Your task to perform on an android device: Go to settings Image 0: 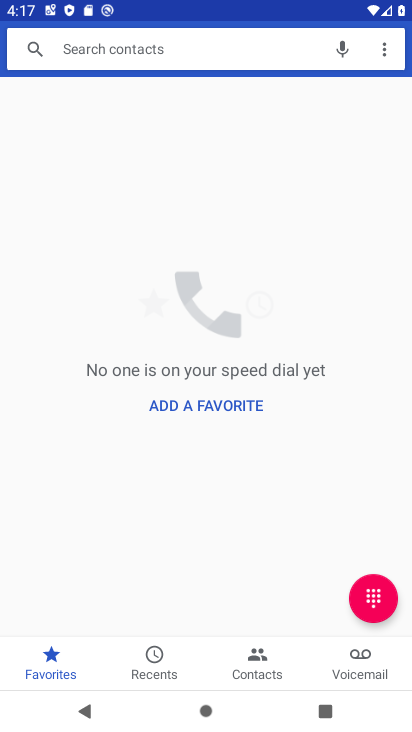
Step 0: press home button
Your task to perform on an android device: Go to settings Image 1: 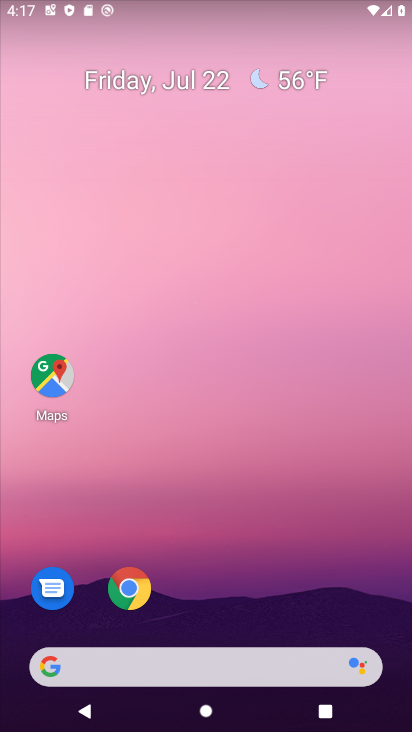
Step 1: drag from (231, 605) to (212, 187)
Your task to perform on an android device: Go to settings Image 2: 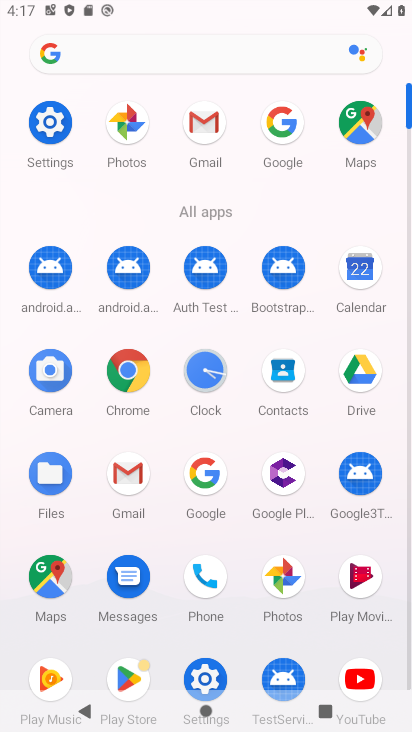
Step 2: click (34, 132)
Your task to perform on an android device: Go to settings Image 3: 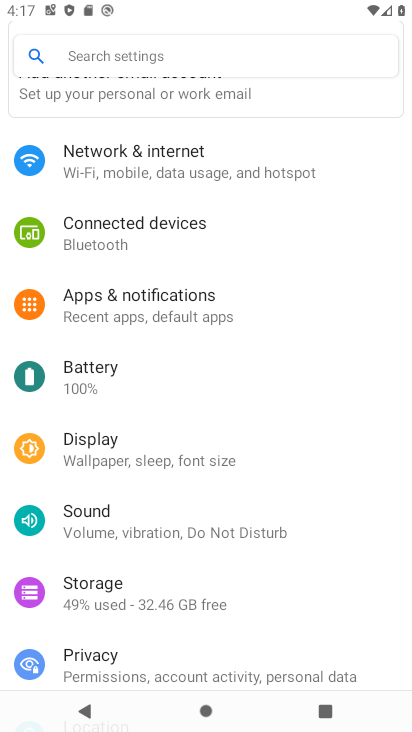
Step 3: task complete